Your task to perform on an android device: show emergency info Image 0: 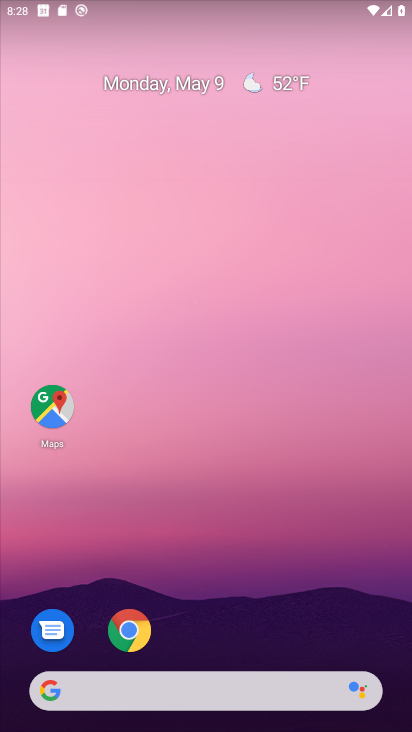
Step 0: drag from (245, 658) to (153, 65)
Your task to perform on an android device: show emergency info Image 1: 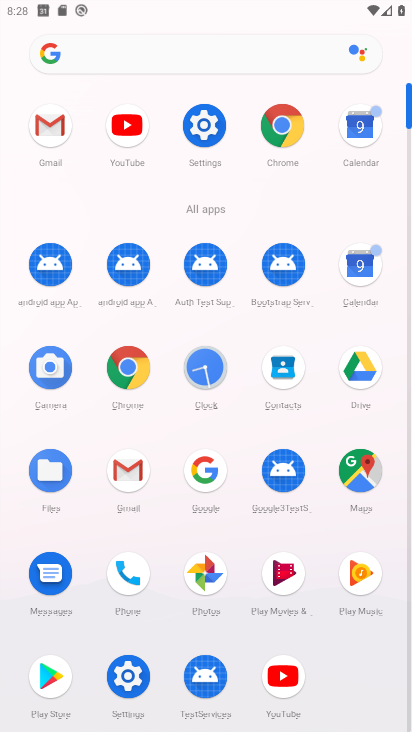
Step 1: click (126, 680)
Your task to perform on an android device: show emergency info Image 2: 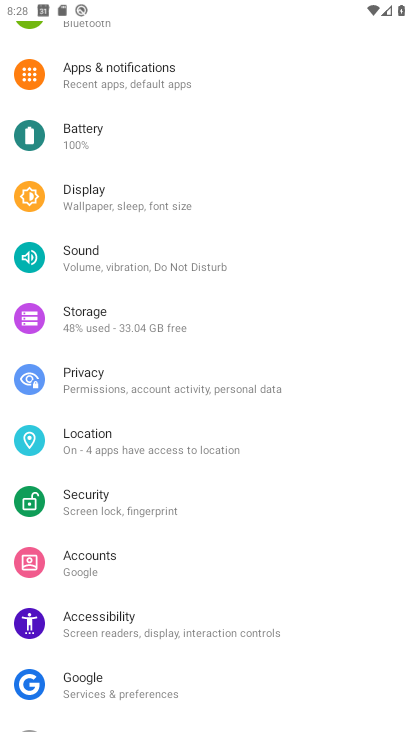
Step 2: drag from (127, 630) to (170, 147)
Your task to perform on an android device: show emergency info Image 3: 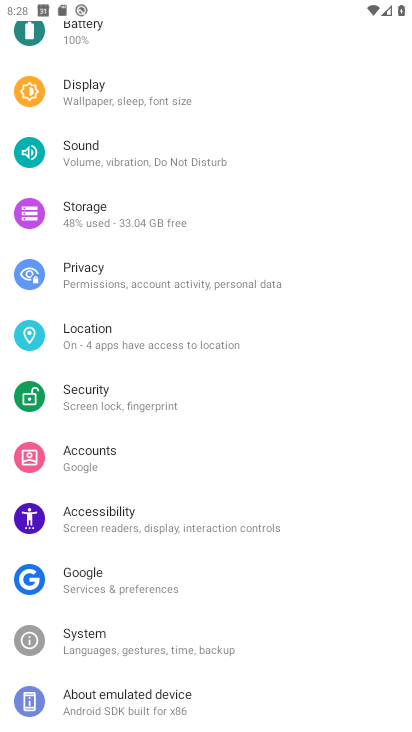
Step 3: click (136, 689)
Your task to perform on an android device: show emergency info Image 4: 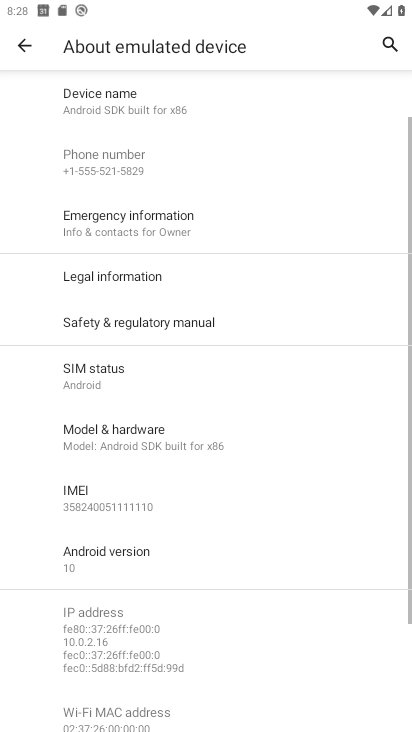
Step 4: click (157, 229)
Your task to perform on an android device: show emergency info Image 5: 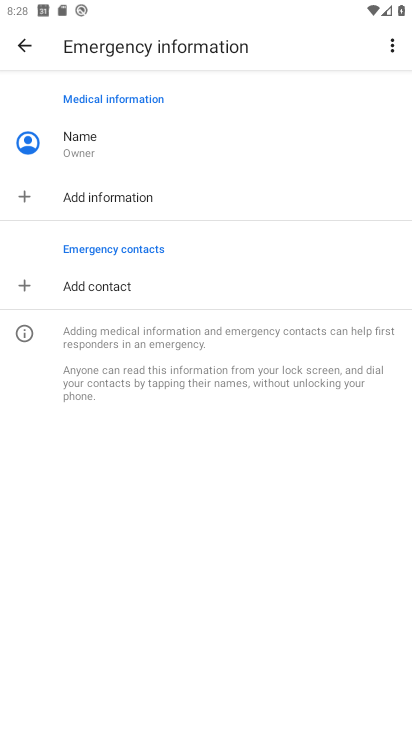
Step 5: task complete